Your task to perform on an android device: toggle data saver in the chrome app Image 0: 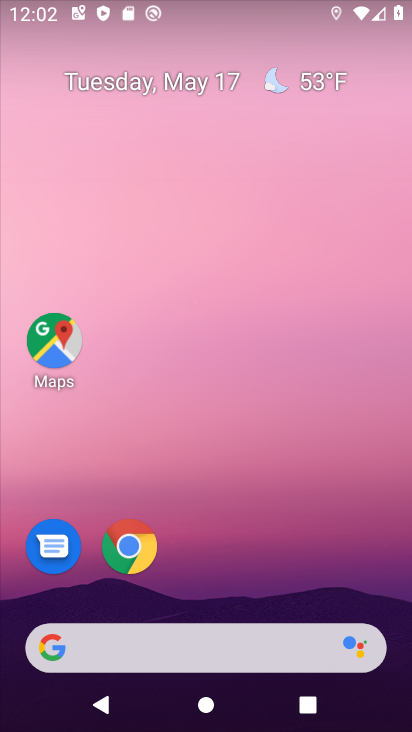
Step 0: click (130, 546)
Your task to perform on an android device: toggle data saver in the chrome app Image 1: 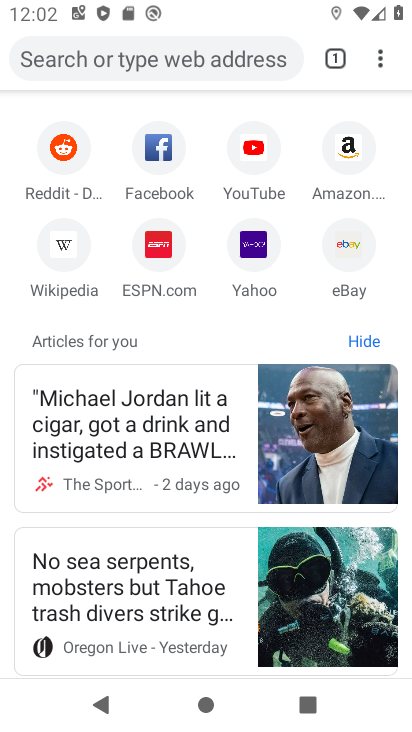
Step 1: click (373, 60)
Your task to perform on an android device: toggle data saver in the chrome app Image 2: 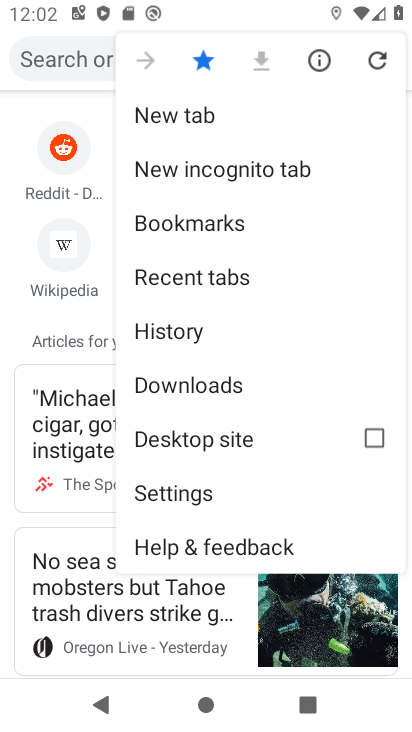
Step 2: click (187, 489)
Your task to perform on an android device: toggle data saver in the chrome app Image 3: 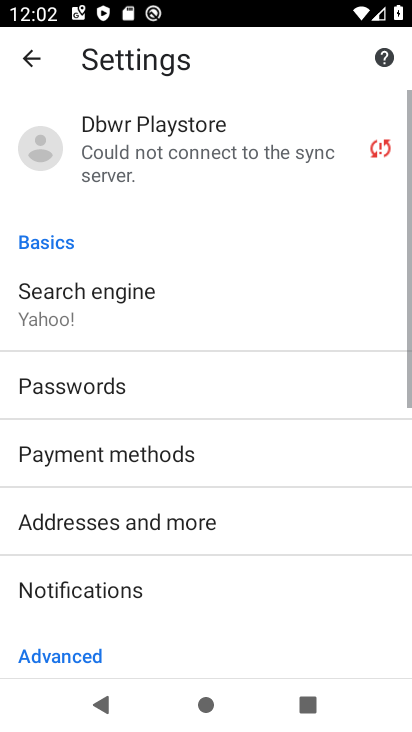
Step 3: drag from (187, 488) to (226, 111)
Your task to perform on an android device: toggle data saver in the chrome app Image 4: 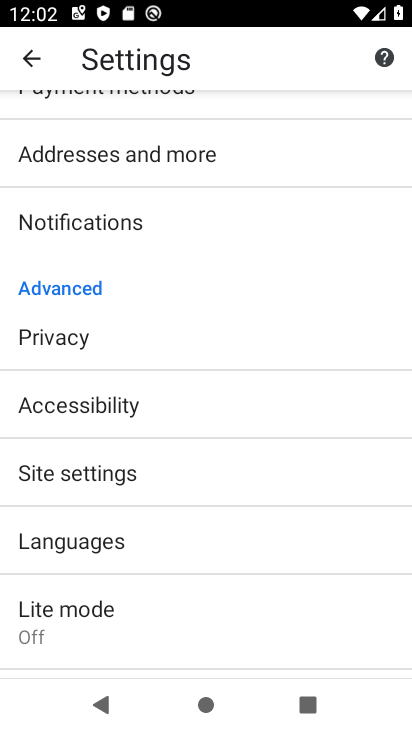
Step 4: drag from (95, 477) to (122, 301)
Your task to perform on an android device: toggle data saver in the chrome app Image 5: 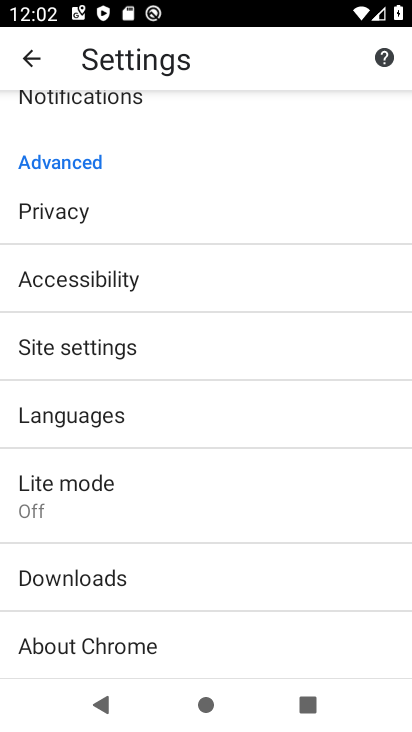
Step 5: click (125, 507)
Your task to perform on an android device: toggle data saver in the chrome app Image 6: 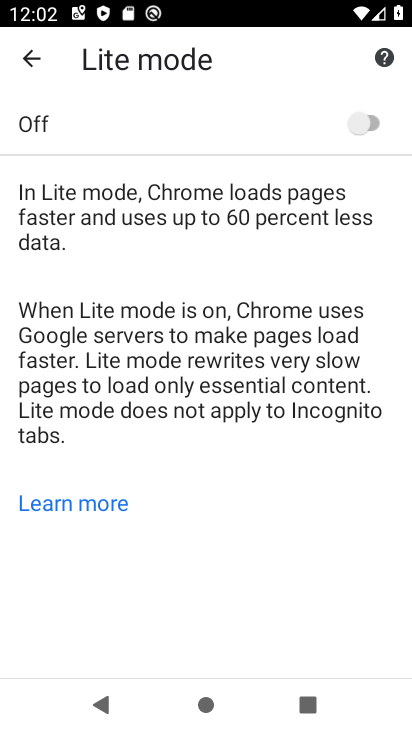
Step 6: click (371, 118)
Your task to perform on an android device: toggle data saver in the chrome app Image 7: 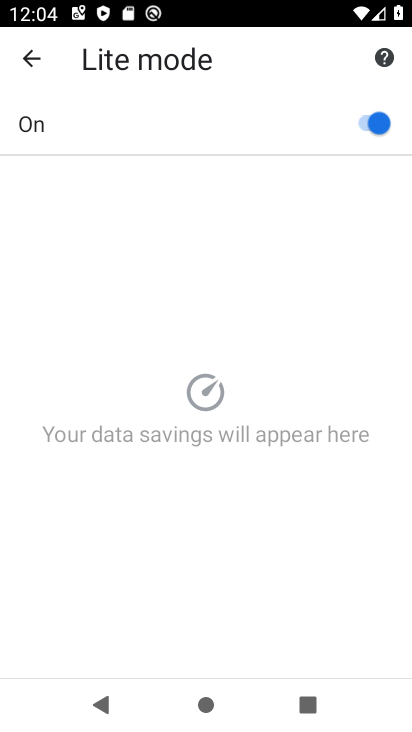
Step 7: task complete